Your task to perform on an android device: Open calendar and show me the fourth week of next month Image 0: 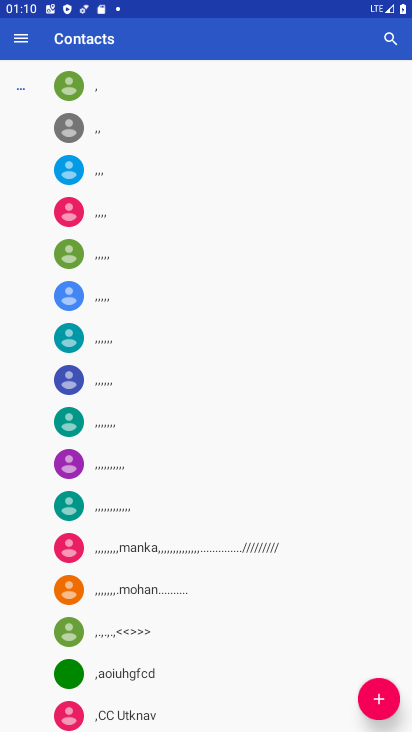
Step 0: press home button
Your task to perform on an android device: Open calendar and show me the fourth week of next month Image 1: 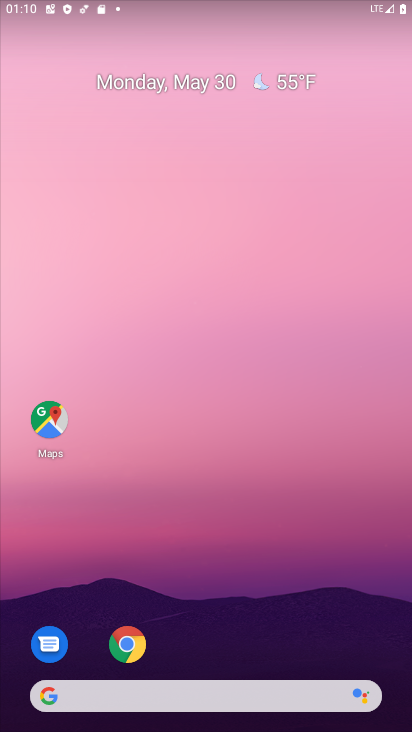
Step 1: drag from (342, 574) to (332, 148)
Your task to perform on an android device: Open calendar and show me the fourth week of next month Image 2: 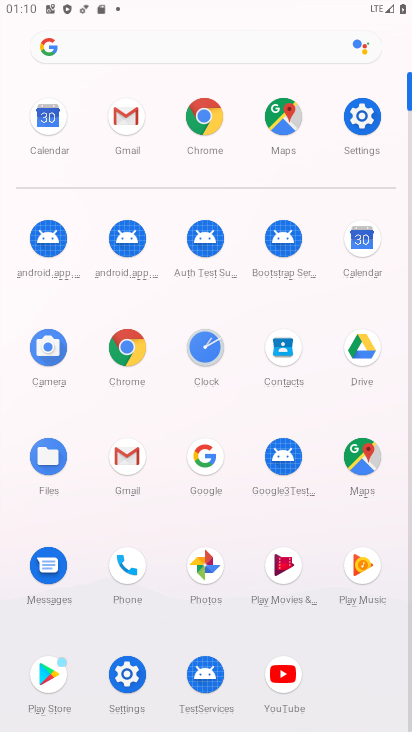
Step 2: click (379, 245)
Your task to perform on an android device: Open calendar and show me the fourth week of next month Image 3: 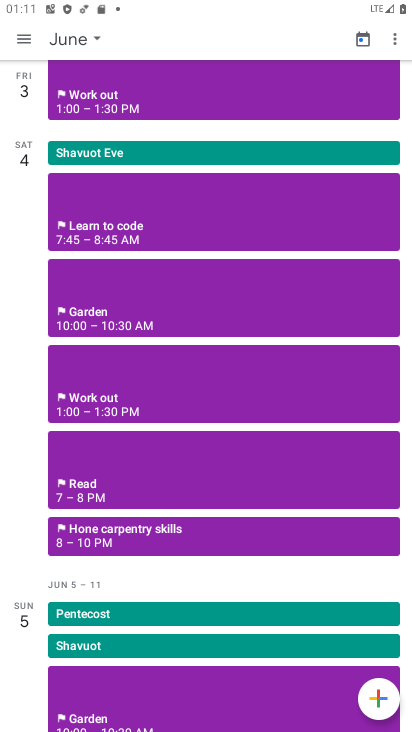
Step 3: click (69, 34)
Your task to perform on an android device: Open calendar and show me the fourth week of next month Image 4: 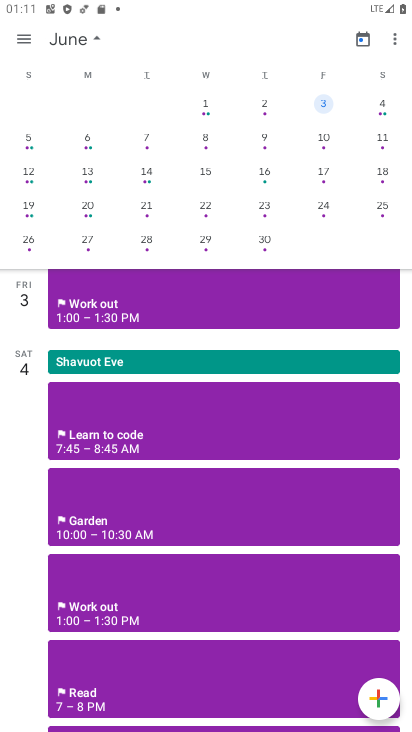
Step 4: click (28, 206)
Your task to perform on an android device: Open calendar and show me the fourth week of next month Image 5: 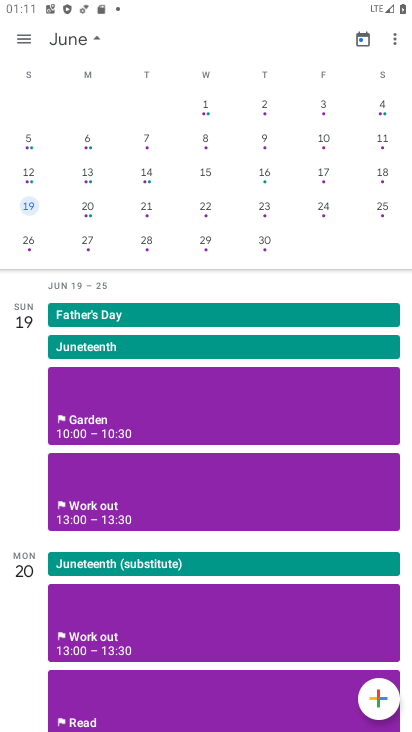
Step 5: task complete